Your task to perform on an android device: turn on bluetooth scan Image 0: 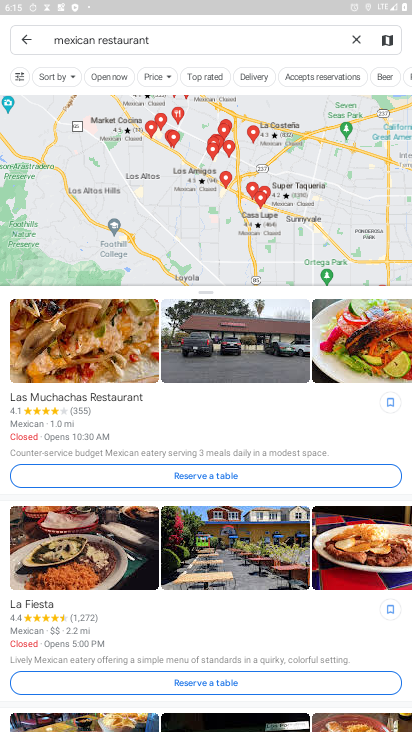
Step 0: press home button
Your task to perform on an android device: turn on bluetooth scan Image 1: 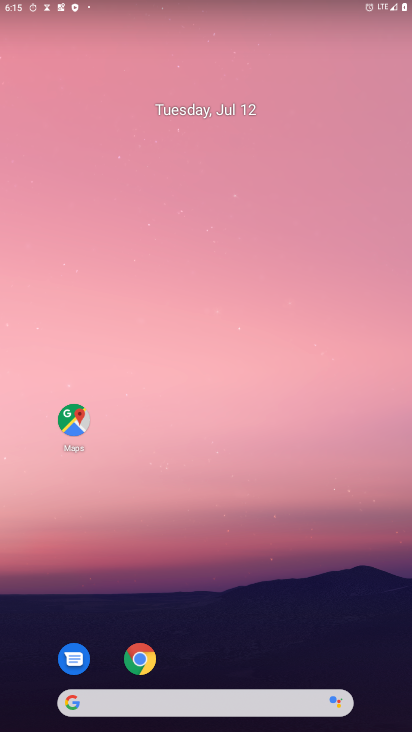
Step 1: drag from (188, 598) to (211, 36)
Your task to perform on an android device: turn on bluetooth scan Image 2: 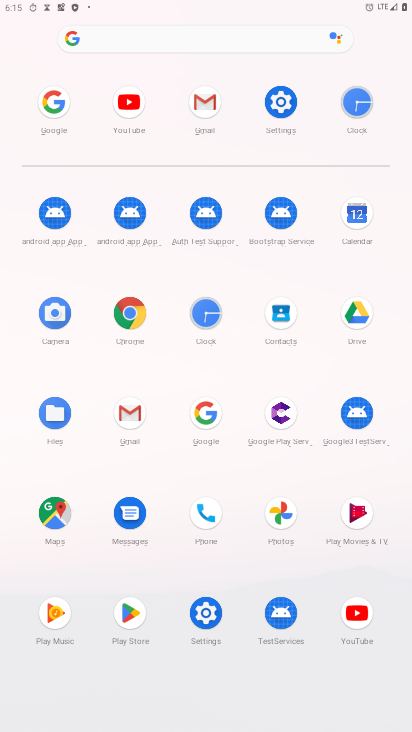
Step 2: click (277, 96)
Your task to perform on an android device: turn on bluetooth scan Image 3: 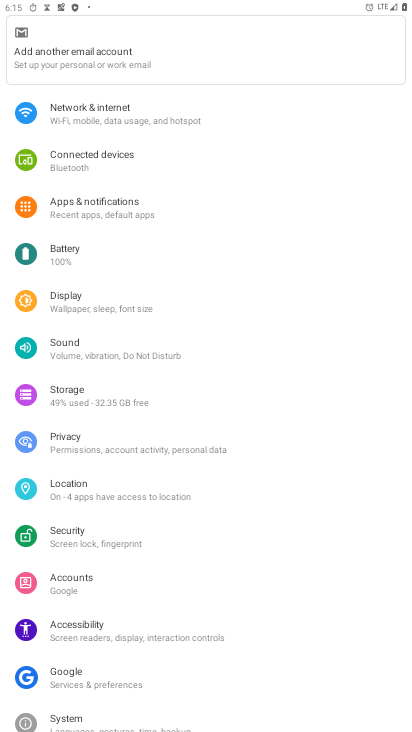
Step 3: click (91, 491)
Your task to perform on an android device: turn on bluetooth scan Image 4: 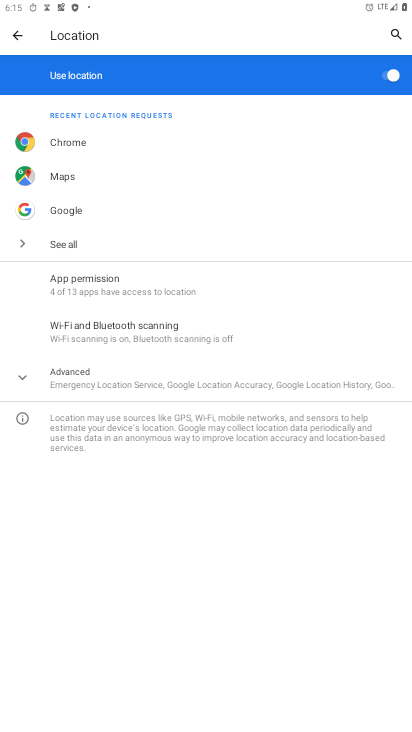
Step 4: click (91, 491)
Your task to perform on an android device: turn on bluetooth scan Image 5: 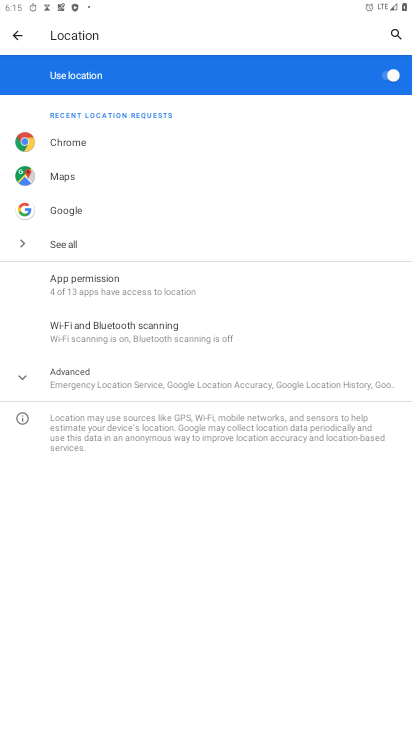
Step 5: click (141, 342)
Your task to perform on an android device: turn on bluetooth scan Image 6: 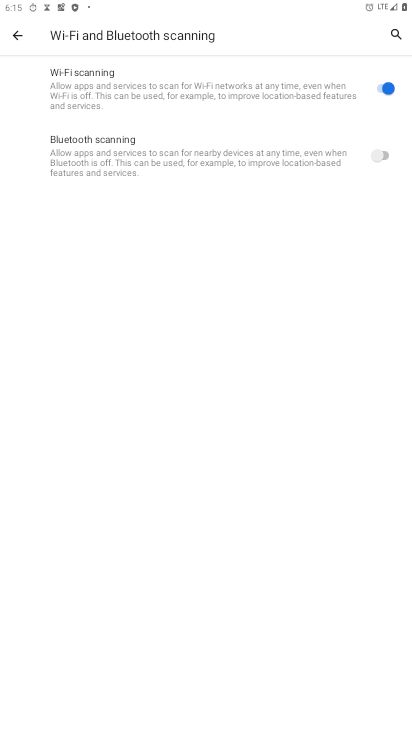
Step 6: click (389, 154)
Your task to perform on an android device: turn on bluetooth scan Image 7: 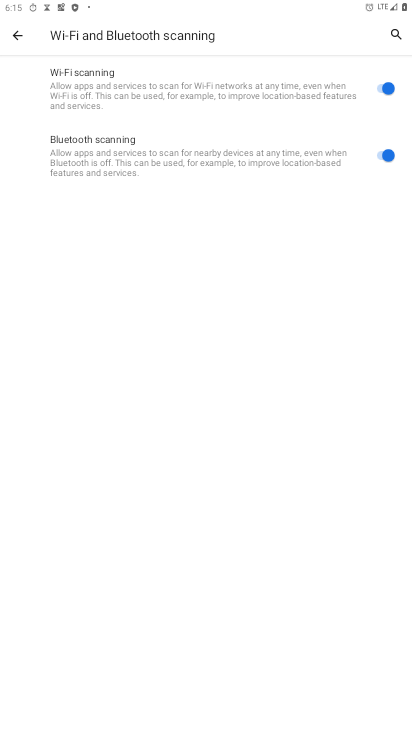
Step 7: task complete